Your task to perform on an android device: open app "The Home Depot" (install if not already installed) and enter user name: "taproot@icloud.com" and password: "executions" Image 0: 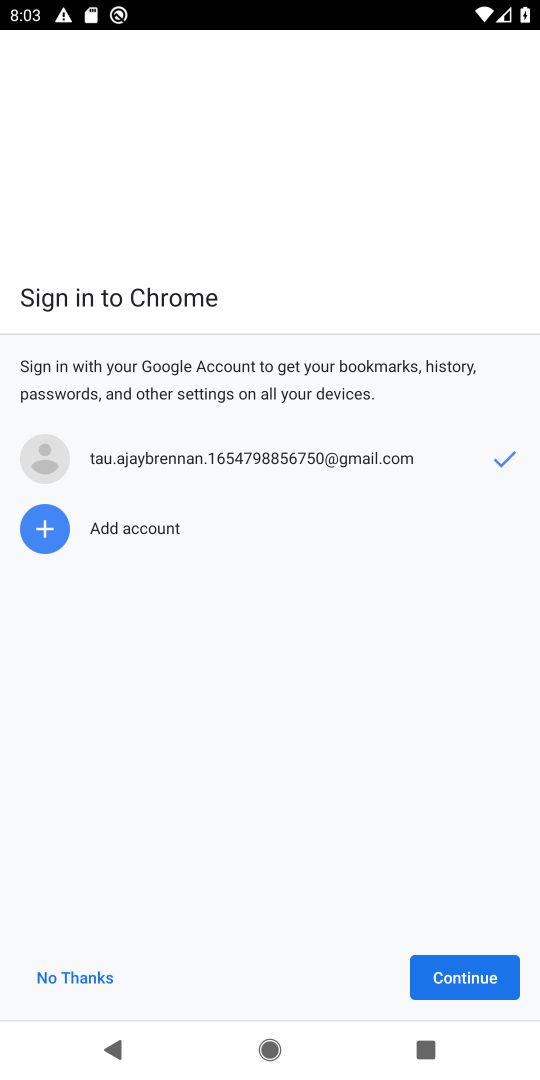
Step 0: press home button
Your task to perform on an android device: open app "The Home Depot" (install if not already installed) and enter user name: "taproot@icloud.com" and password: "executions" Image 1: 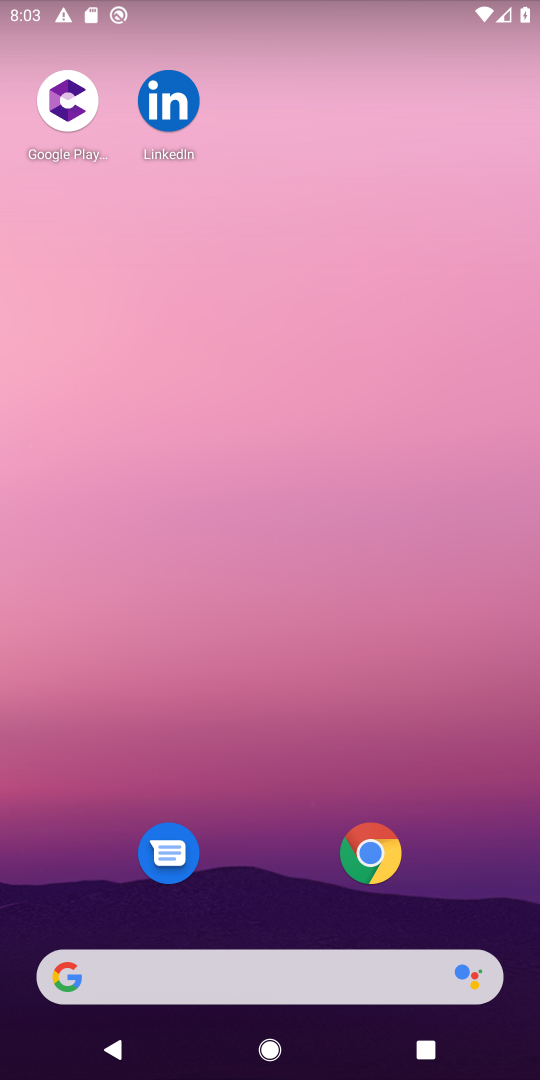
Step 1: drag from (263, 750) to (282, 295)
Your task to perform on an android device: open app "The Home Depot" (install if not already installed) and enter user name: "taproot@icloud.com" and password: "executions" Image 2: 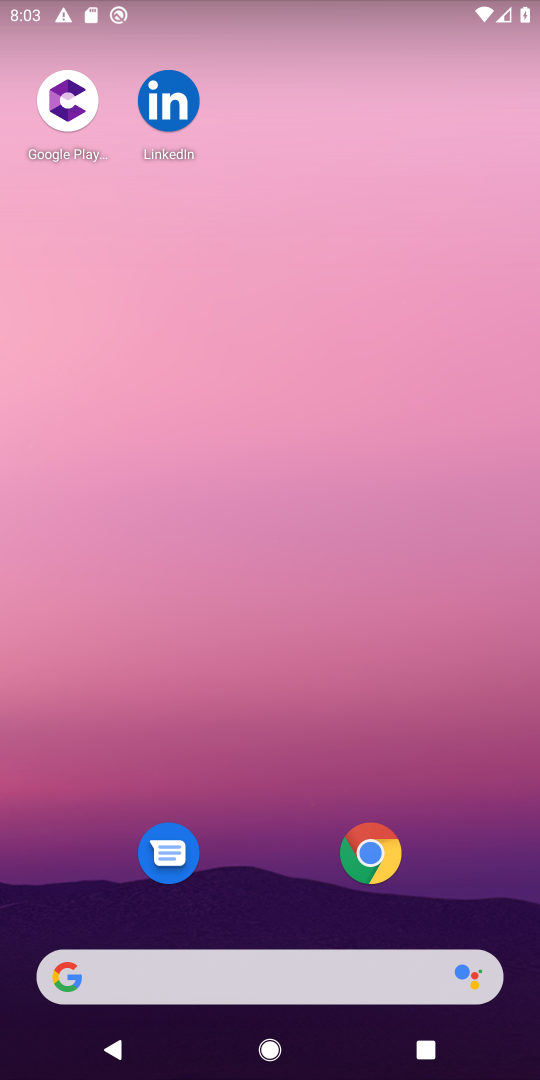
Step 2: drag from (277, 854) to (364, 157)
Your task to perform on an android device: open app "The Home Depot" (install if not already installed) and enter user name: "taproot@icloud.com" and password: "executions" Image 3: 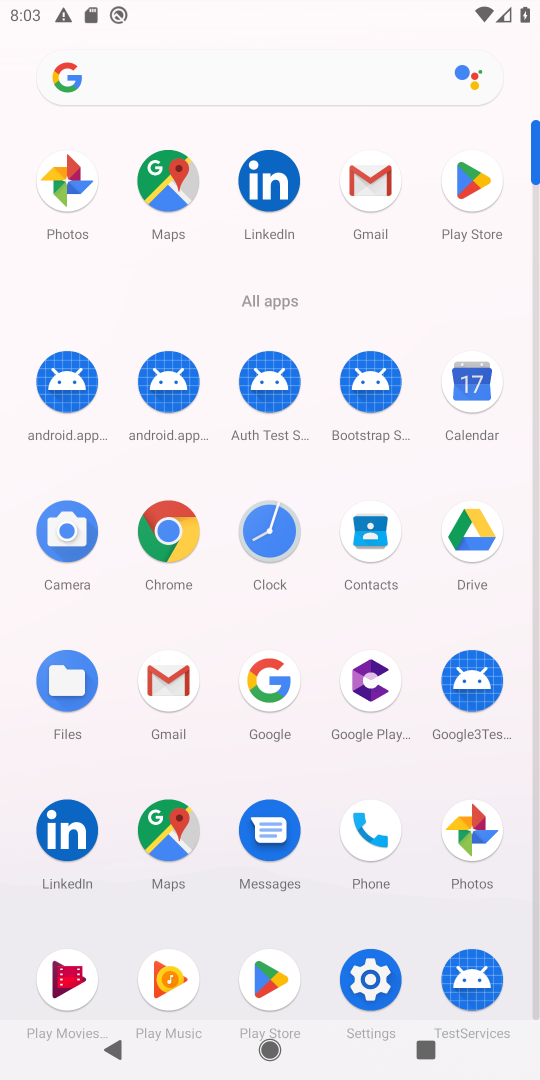
Step 3: click (474, 179)
Your task to perform on an android device: open app "The Home Depot" (install if not already installed) and enter user name: "taproot@icloud.com" and password: "executions" Image 4: 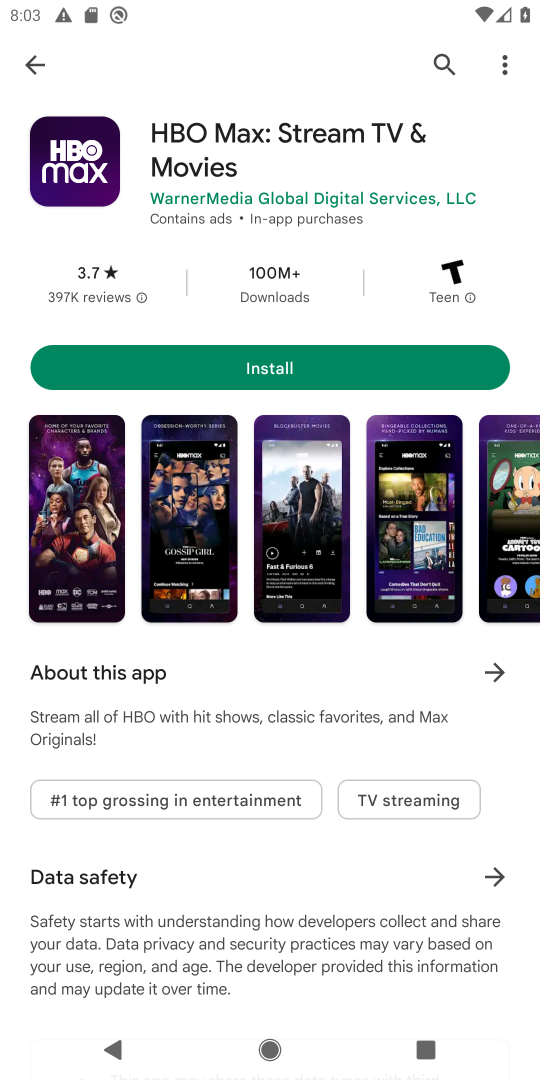
Step 4: click (427, 60)
Your task to perform on an android device: open app "The Home Depot" (install if not already installed) and enter user name: "taproot@icloud.com" and password: "executions" Image 5: 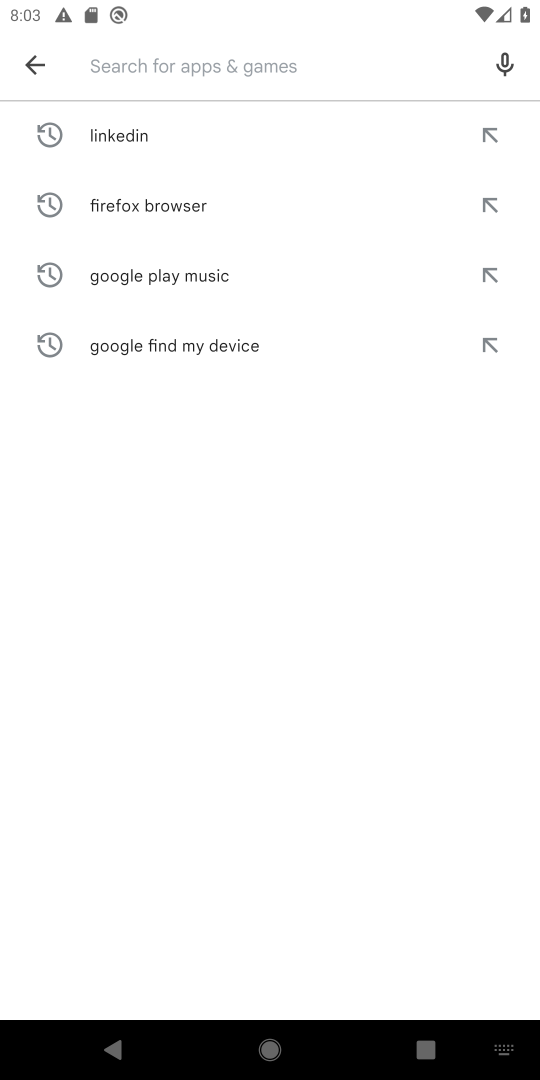
Step 5: type "The Home Depot"
Your task to perform on an android device: open app "The Home Depot" (install if not already installed) and enter user name: "taproot@icloud.com" and password: "executions" Image 6: 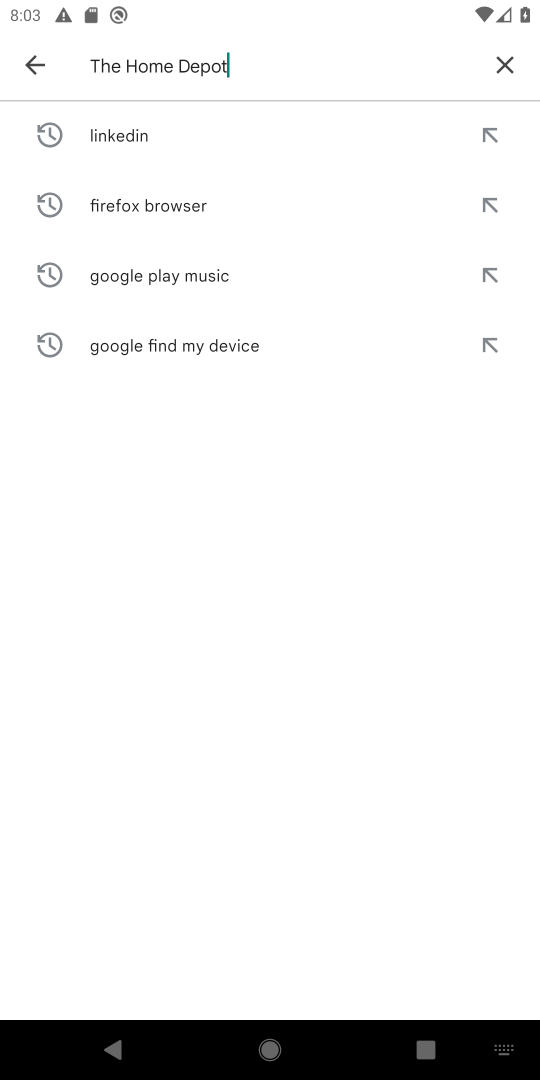
Step 6: type ""
Your task to perform on an android device: open app "The Home Depot" (install if not already installed) and enter user name: "taproot@icloud.com" and password: "executions" Image 7: 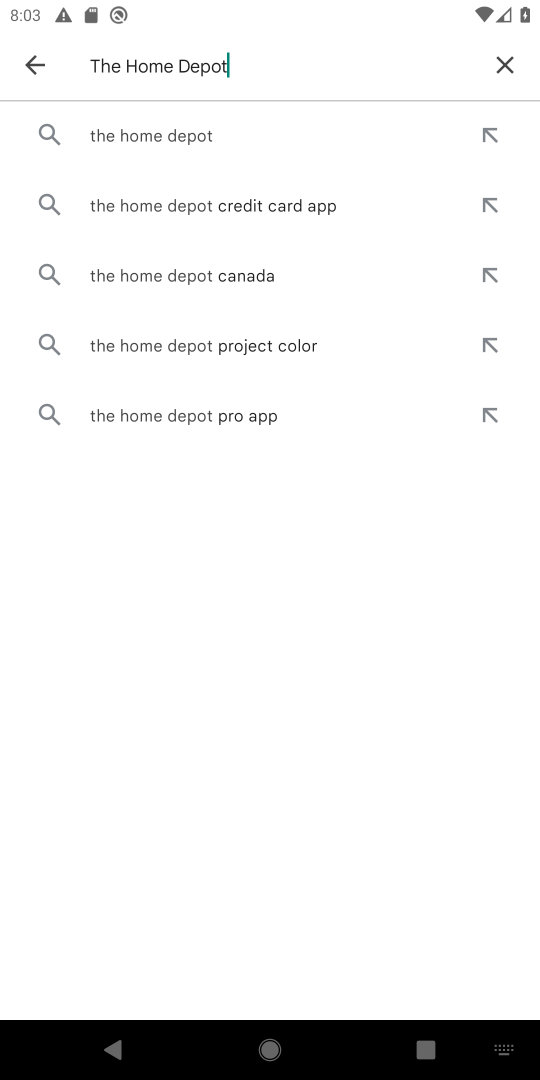
Step 7: click (199, 118)
Your task to perform on an android device: open app "The Home Depot" (install if not already installed) and enter user name: "taproot@icloud.com" and password: "executions" Image 8: 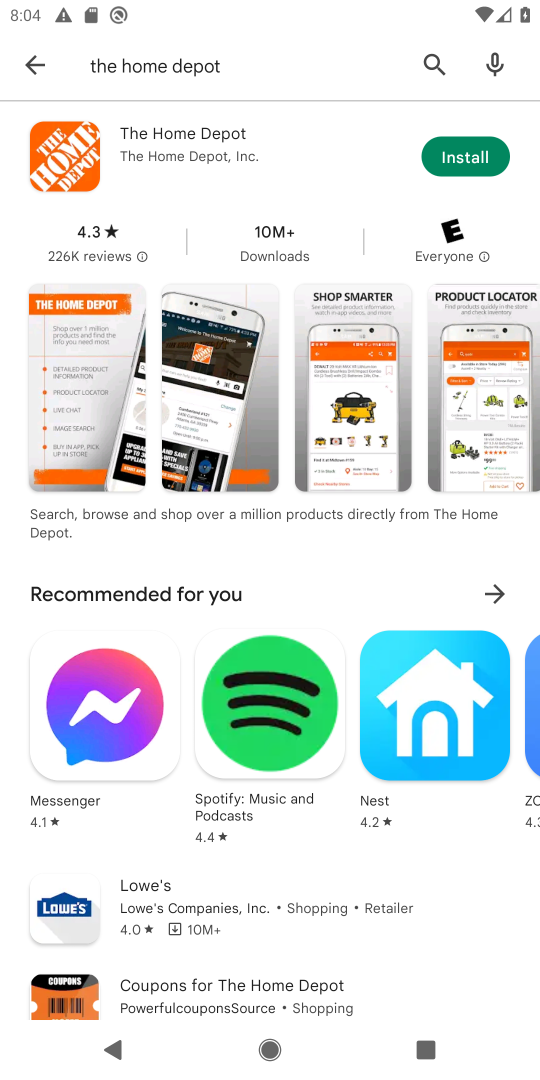
Step 8: click (463, 155)
Your task to perform on an android device: open app "The Home Depot" (install if not already installed) and enter user name: "taproot@icloud.com" and password: "executions" Image 9: 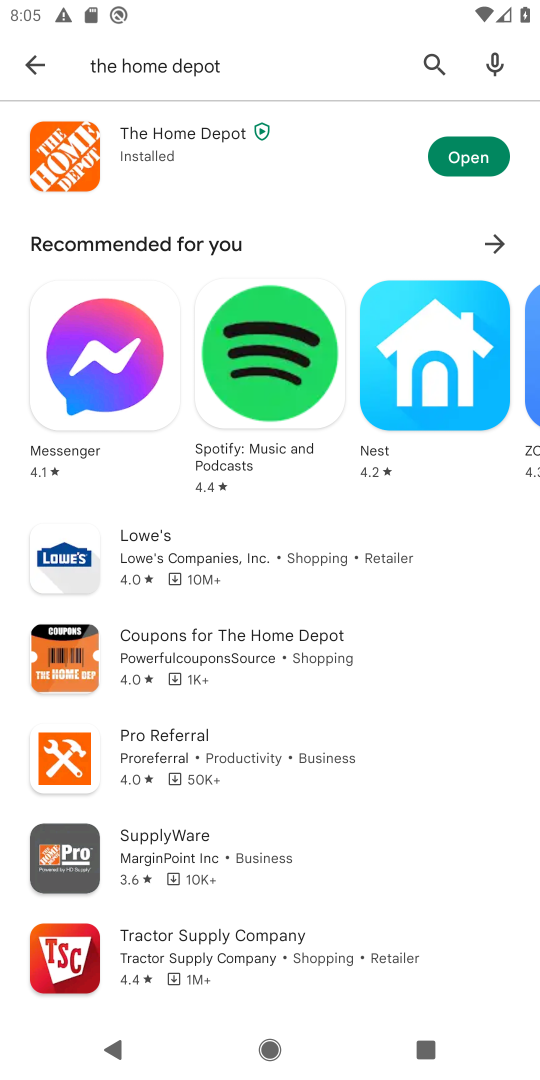
Step 9: click (477, 147)
Your task to perform on an android device: open app "The Home Depot" (install if not already installed) and enter user name: "taproot@icloud.com" and password: "executions" Image 10: 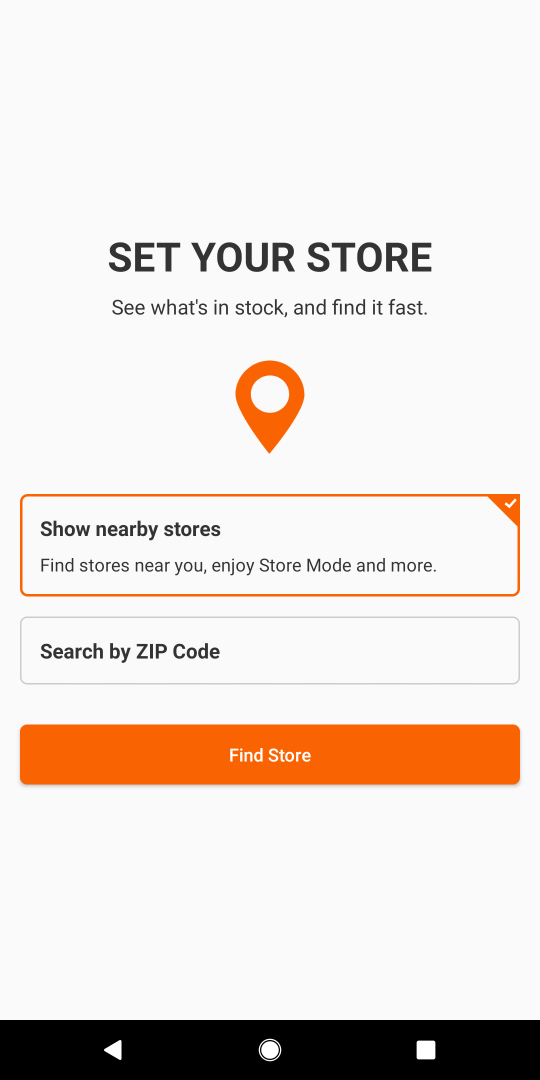
Step 10: click (338, 770)
Your task to perform on an android device: open app "The Home Depot" (install if not already installed) and enter user name: "taproot@icloud.com" and password: "executions" Image 11: 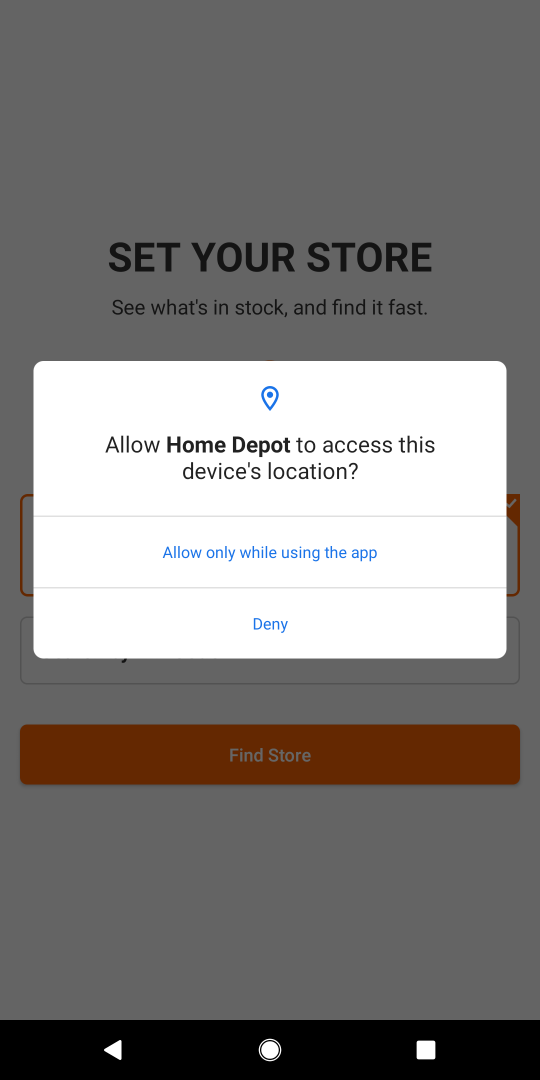
Step 11: click (293, 620)
Your task to perform on an android device: open app "The Home Depot" (install if not already installed) and enter user name: "taproot@icloud.com" and password: "executions" Image 12: 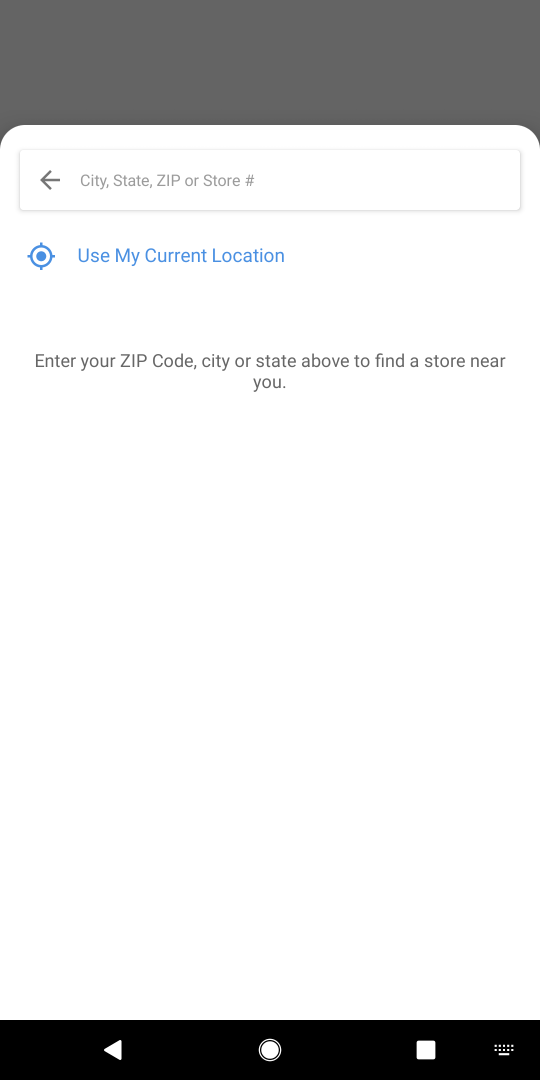
Step 12: task complete